Your task to perform on an android device: Open Maps and search for coffee Image 0: 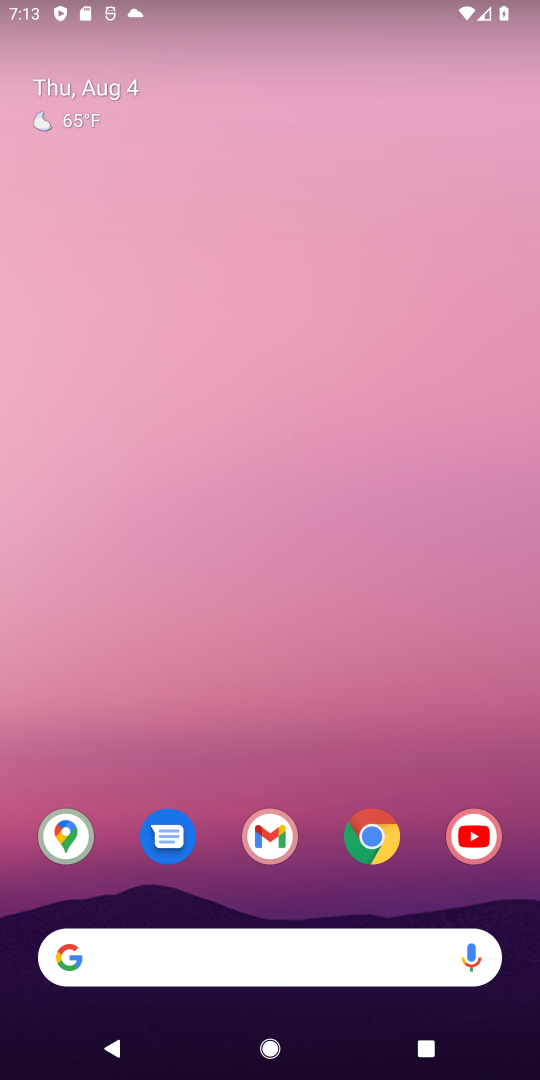
Step 0: click (55, 843)
Your task to perform on an android device: Open Maps and search for coffee Image 1: 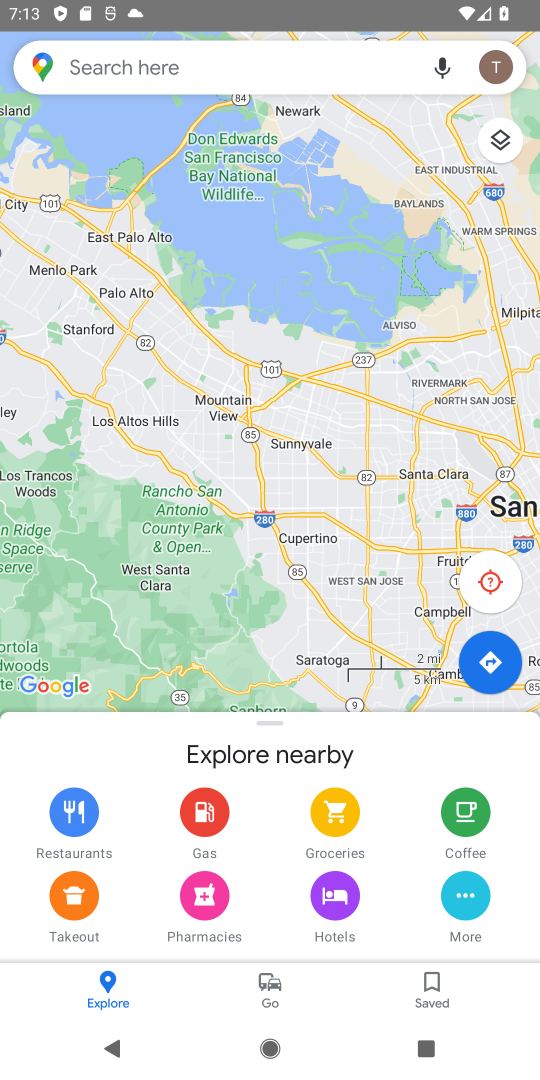
Step 1: click (211, 79)
Your task to perform on an android device: Open Maps and search for coffee Image 2: 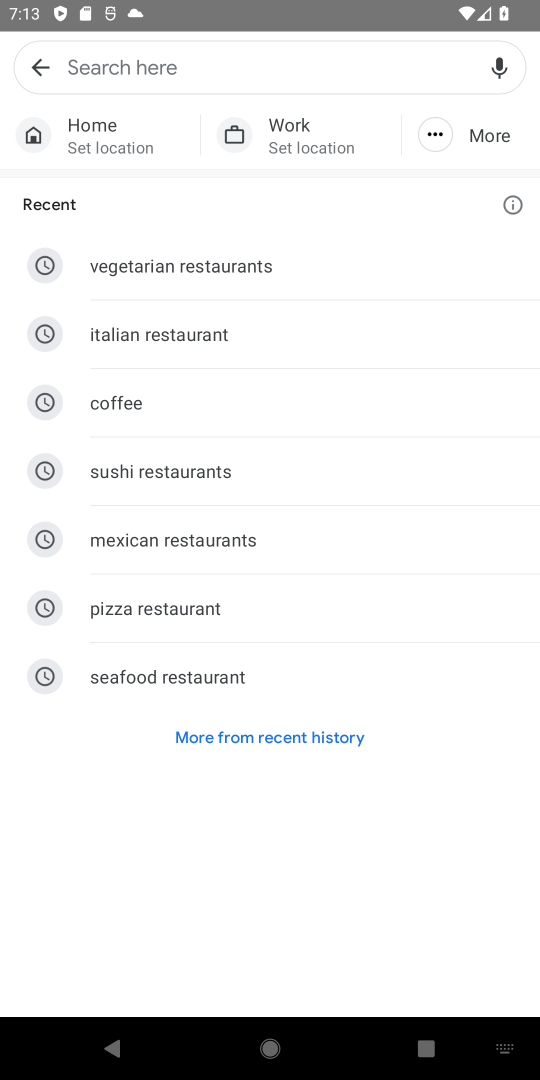
Step 2: click (163, 405)
Your task to perform on an android device: Open Maps and search for coffee Image 3: 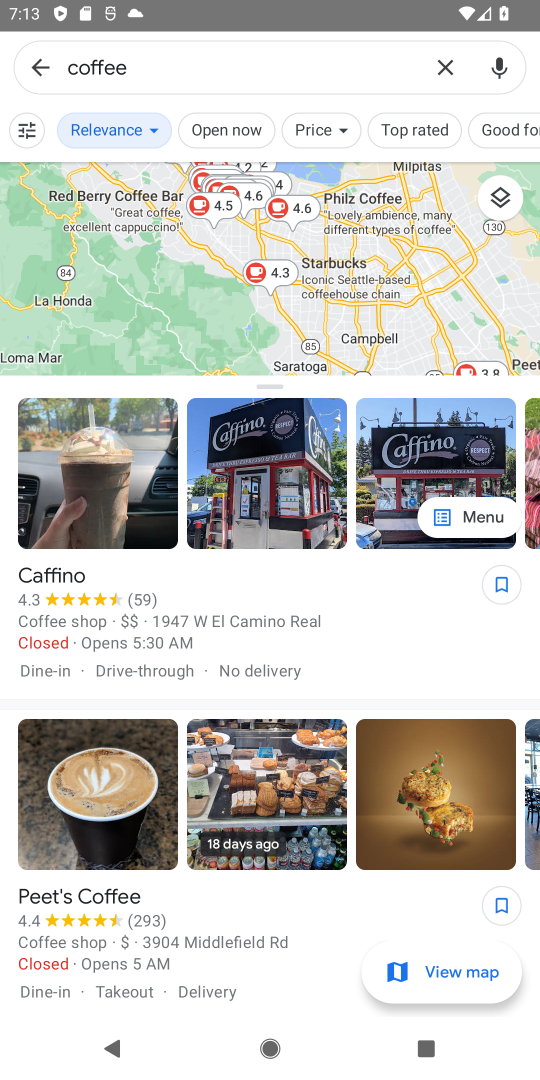
Step 3: task complete